Your task to perform on an android device: Go to display settings Image 0: 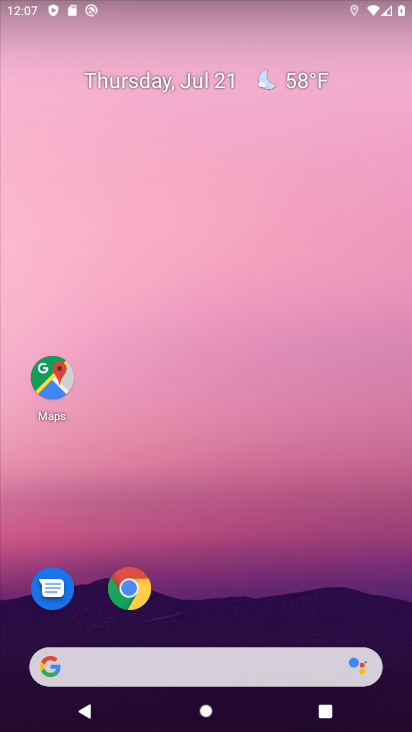
Step 0: drag from (211, 619) to (197, 145)
Your task to perform on an android device: Go to display settings Image 1: 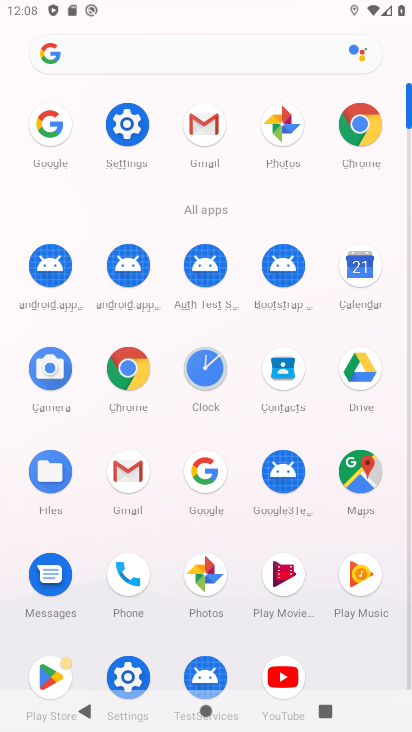
Step 1: click (122, 110)
Your task to perform on an android device: Go to display settings Image 2: 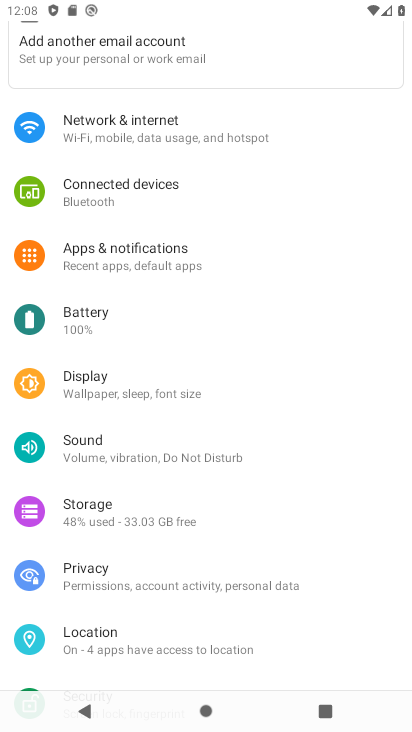
Step 2: click (101, 376)
Your task to perform on an android device: Go to display settings Image 3: 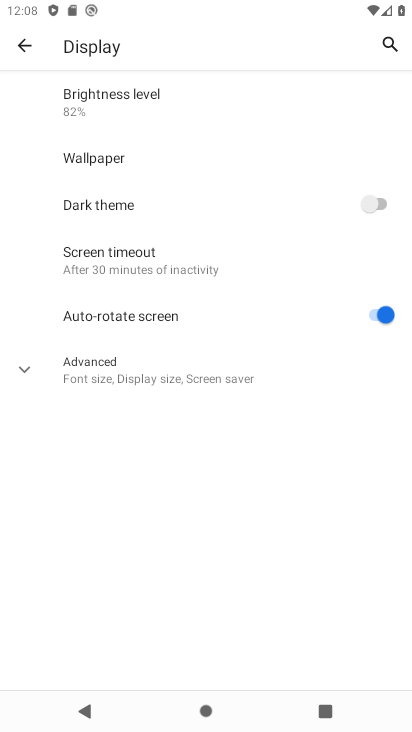
Step 3: task complete